Your task to perform on an android device: turn notification dots off Image 0: 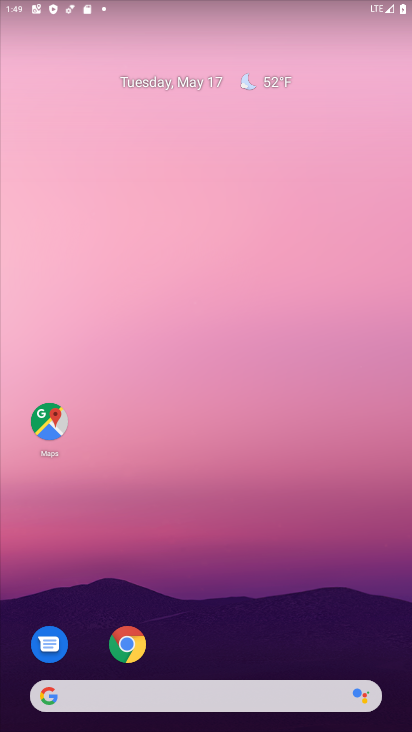
Step 0: drag from (214, 679) to (250, 217)
Your task to perform on an android device: turn notification dots off Image 1: 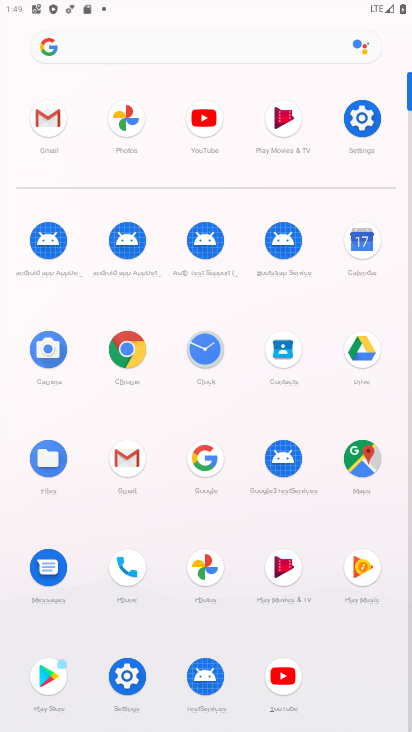
Step 1: click (365, 111)
Your task to perform on an android device: turn notification dots off Image 2: 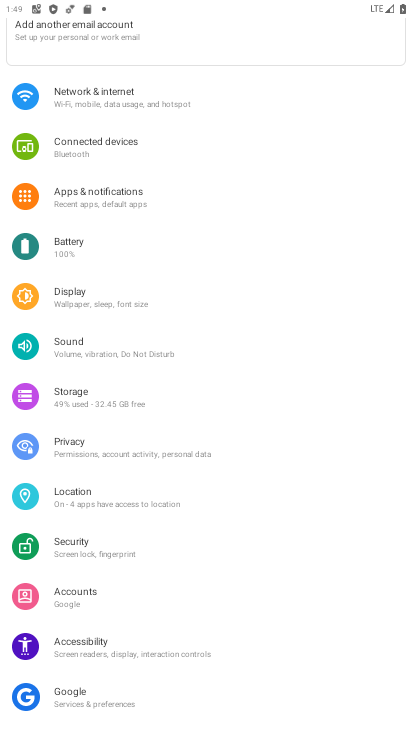
Step 2: click (110, 209)
Your task to perform on an android device: turn notification dots off Image 3: 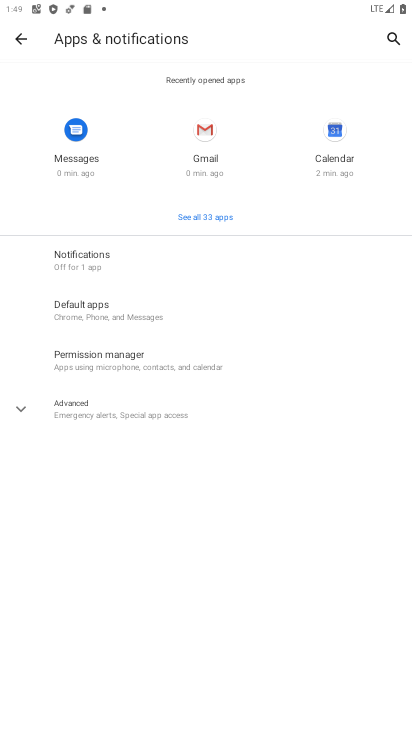
Step 3: click (115, 257)
Your task to perform on an android device: turn notification dots off Image 4: 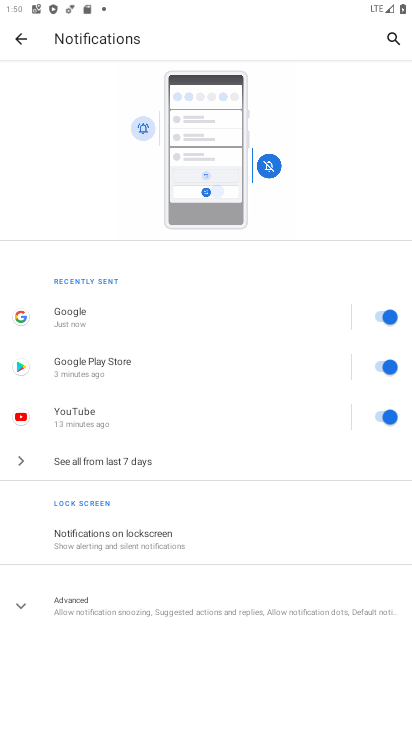
Step 4: click (133, 604)
Your task to perform on an android device: turn notification dots off Image 5: 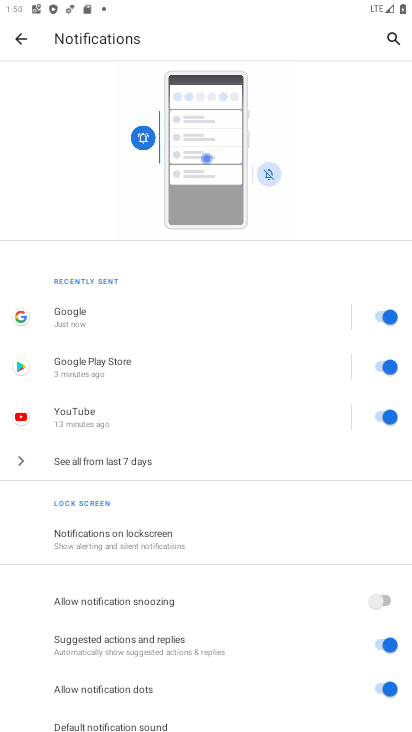
Step 5: click (385, 688)
Your task to perform on an android device: turn notification dots off Image 6: 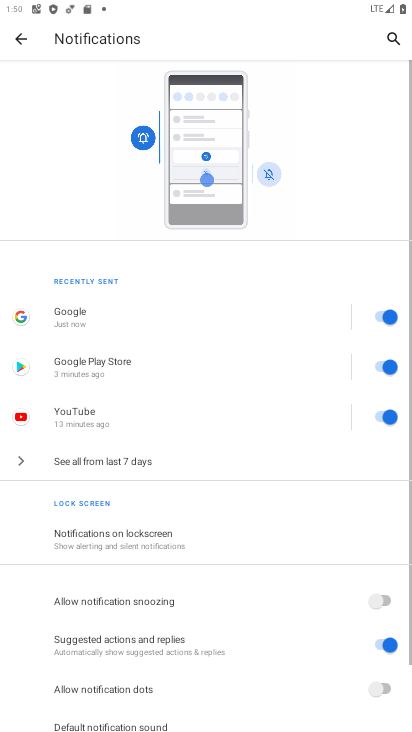
Step 6: task complete